Your task to perform on an android device: Go to internet settings Image 0: 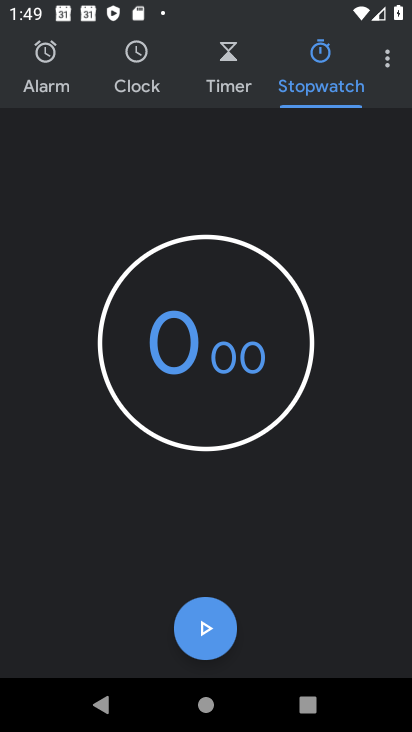
Step 0: click (366, 505)
Your task to perform on an android device: Go to internet settings Image 1: 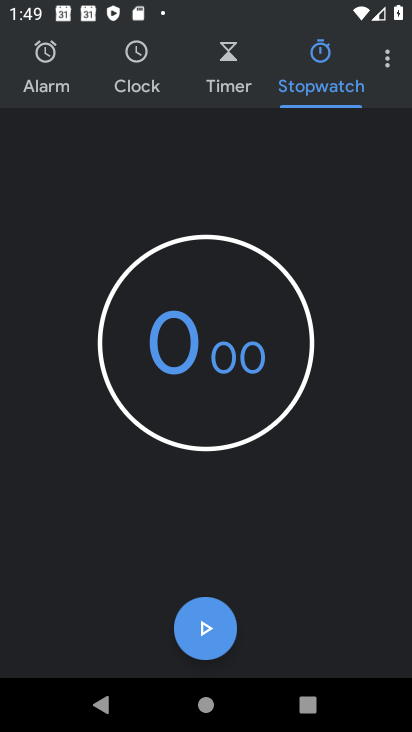
Step 1: press home button
Your task to perform on an android device: Go to internet settings Image 2: 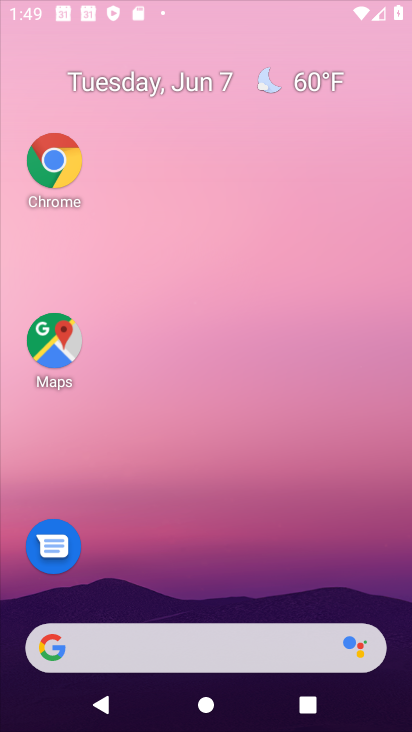
Step 2: drag from (257, 635) to (229, 12)
Your task to perform on an android device: Go to internet settings Image 3: 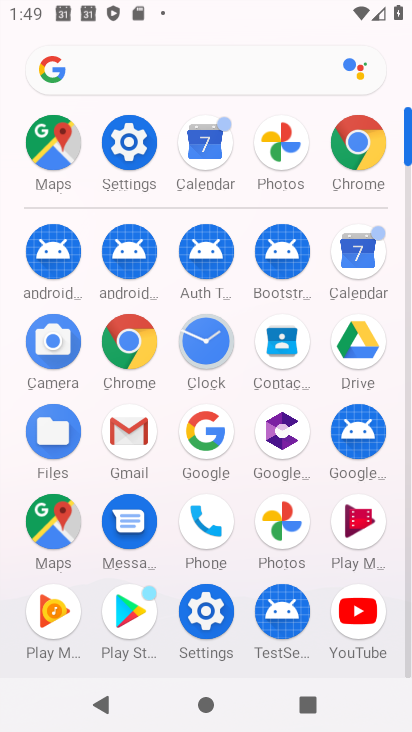
Step 3: click (133, 158)
Your task to perform on an android device: Go to internet settings Image 4: 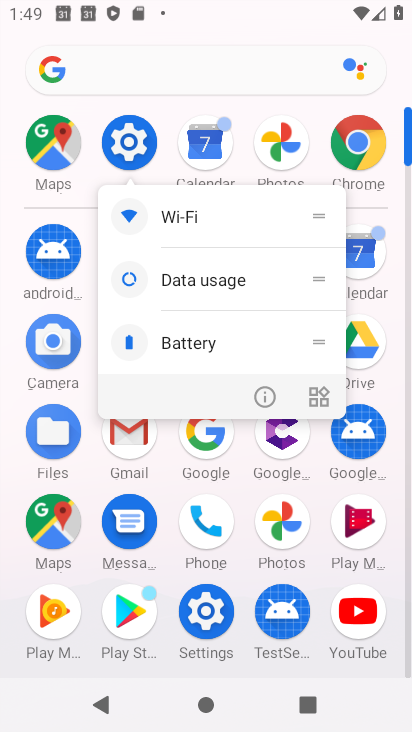
Step 4: click (263, 394)
Your task to perform on an android device: Go to internet settings Image 5: 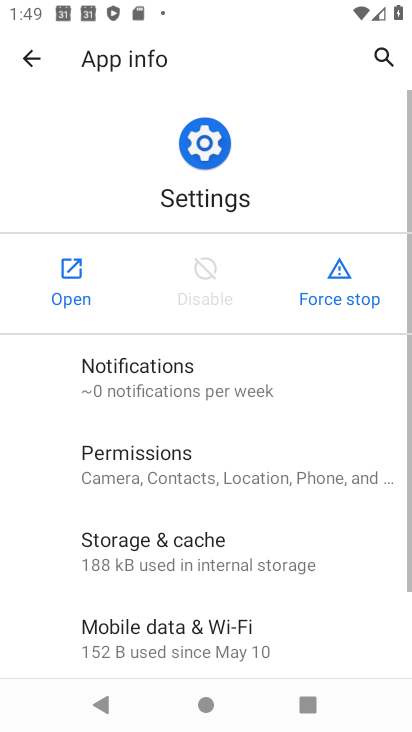
Step 5: click (78, 281)
Your task to perform on an android device: Go to internet settings Image 6: 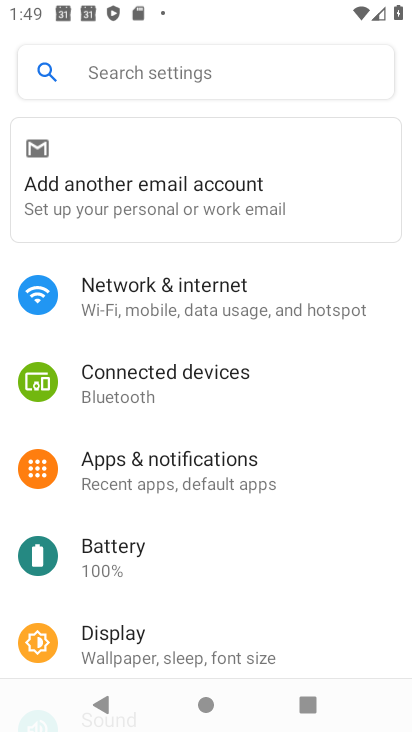
Step 6: click (146, 290)
Your task to perform on an android device: Go to internet settings Image 7: 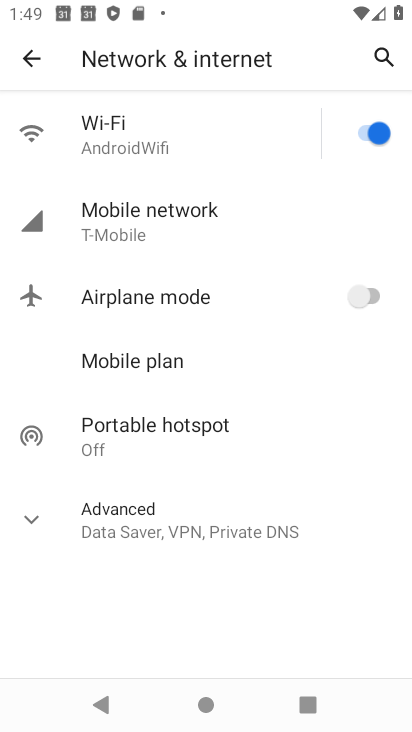
Step 7: task complete